Your task to perform on an android device: change alarm snooze length Image 0: 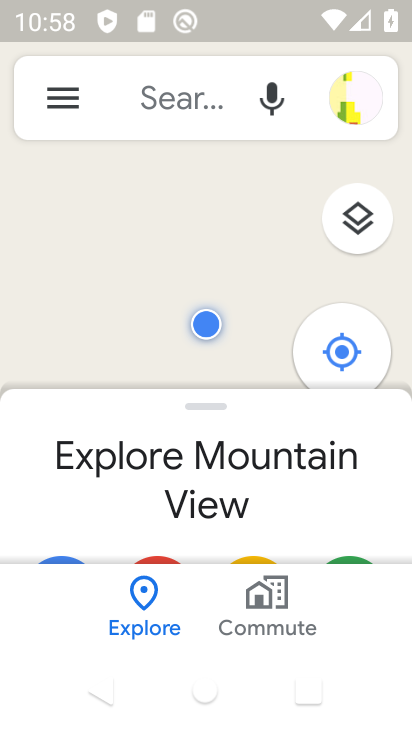
Step 0: press home button
Your task to perform on an android device: change alarm snooze length Image 1: 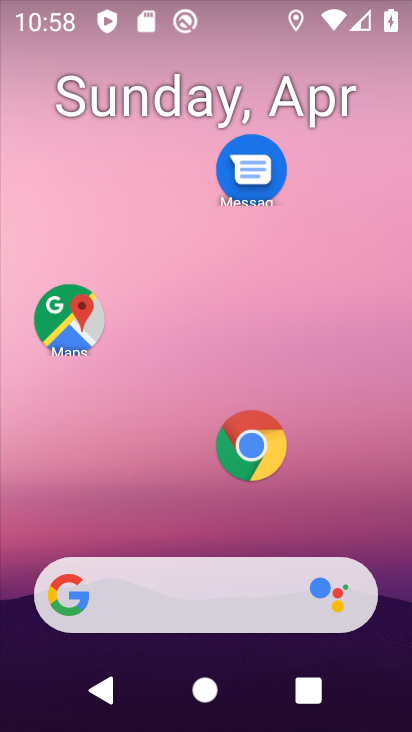
Step 1: drag from (171, 599) to (362, 58)
Your task to perform on an android device: change alarm snooze length Image 2: 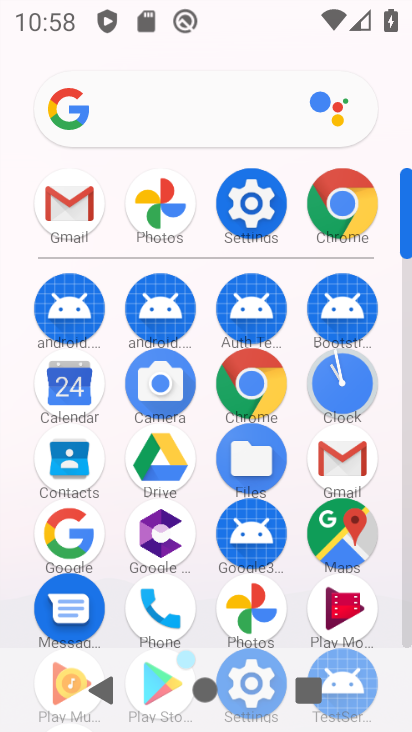
Step 2: click (344, 382)
Your task to perform on an android device: change alarm snooze length Image 3: 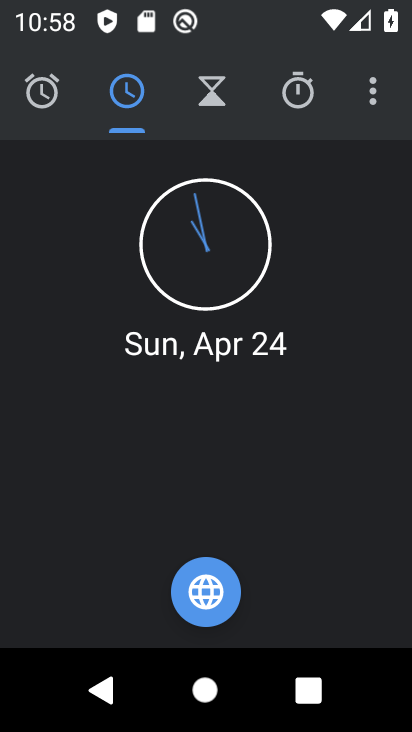
Step 3: click (369, 99)
Your task to perform on an android device: change alarm snooze length Image 4: 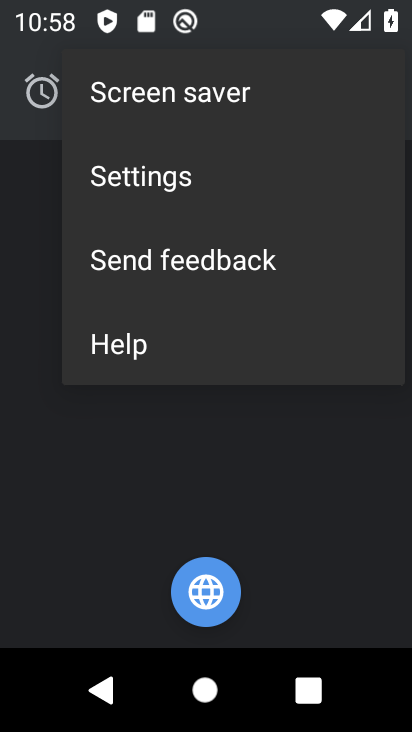
Step 4: click (187, 179)
Your task to perform on an android device: change alarm snooze length Image 5: 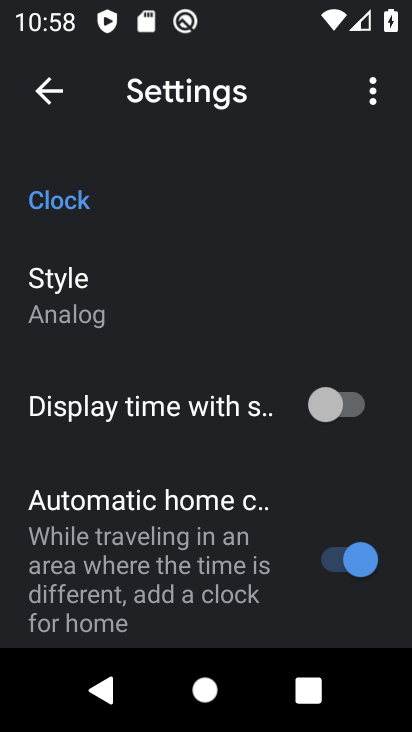
Step 5: drag from (115, 584) to (355, 10)
Your task to perform on an android device: change alarm snooze length Image 6: 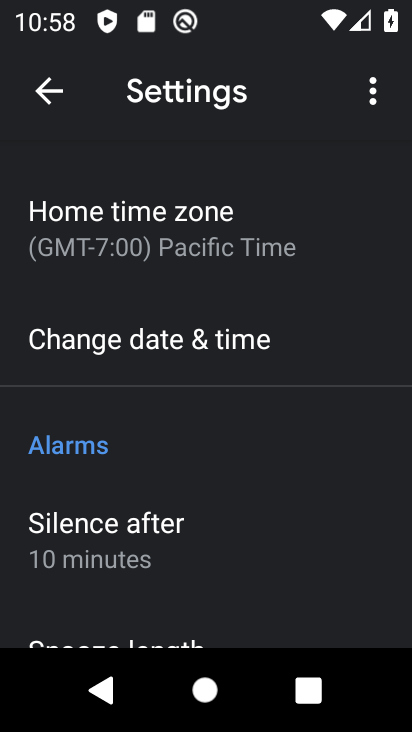
Step 6: drag from (149, 552) to (306, 180)
Your task to perform on an android device: change alarm snooze length Image 7: 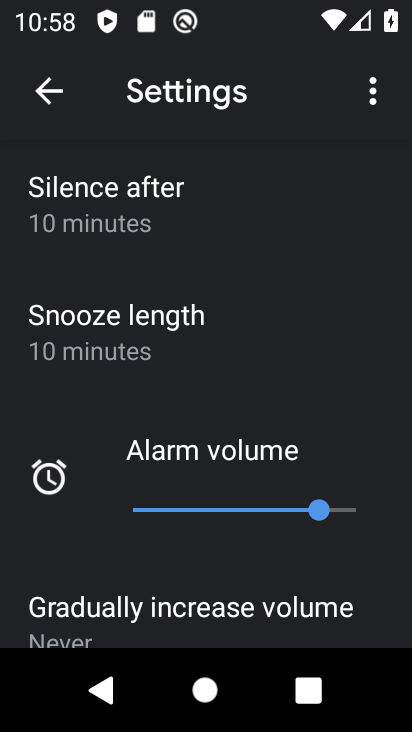
Step 7: click (113, 334)
Your task to perform on an android device: change alarm snooze length Image 8: 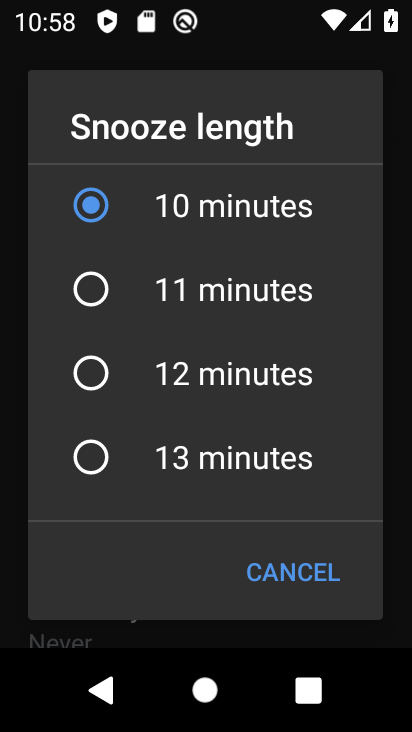
Step 8: click (79, 371)
Your task to perform on an android device: change alarm snooze length Image 9: 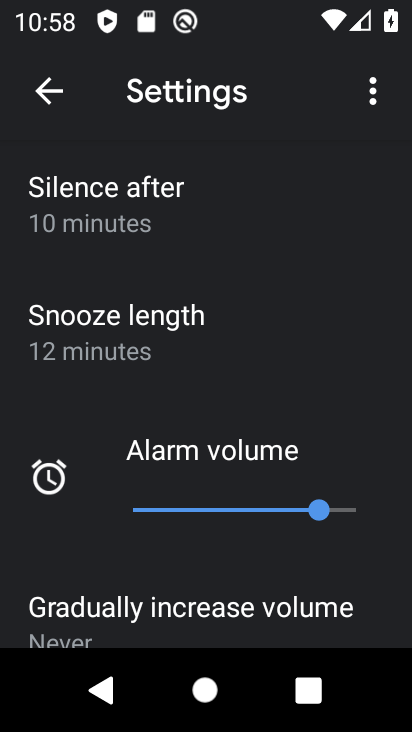
Step 9: task complete